Your task to perform on an android device: Open Amazon Image 0: 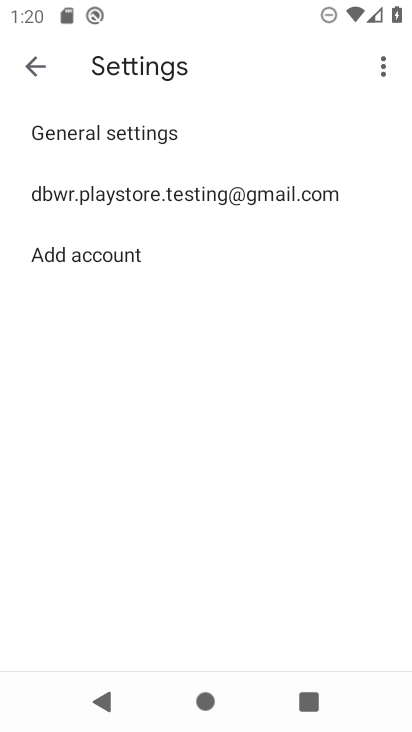
Step 0: press home button
Your task to perform on an android device: Open Amazon Image 1: 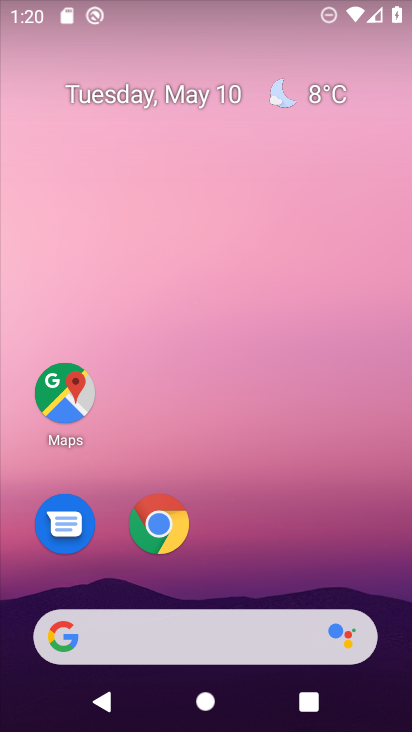
Step 1: click (222, 639)
Your task to perform on an android device: Open Amazon Image 2: 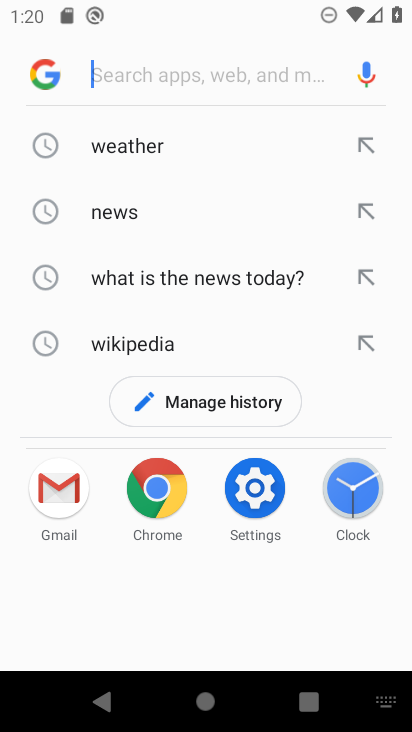
Step 2: type "amazon"
Your task to perform on an android device: Open Amazon Image 3: 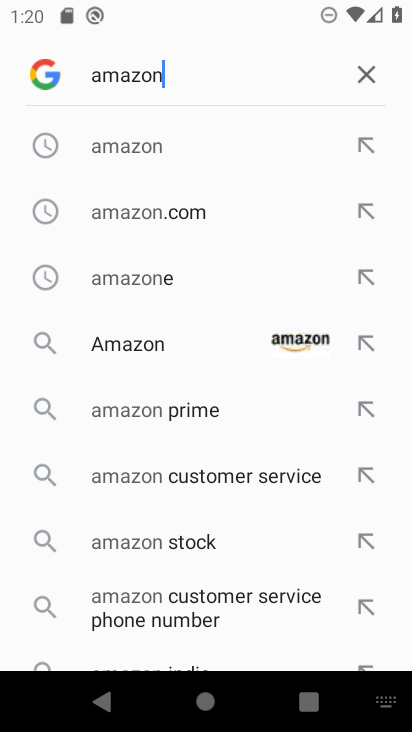
Step 3: click (155, 344)
Your task to perform on an android device: Open Amazon Image 4: 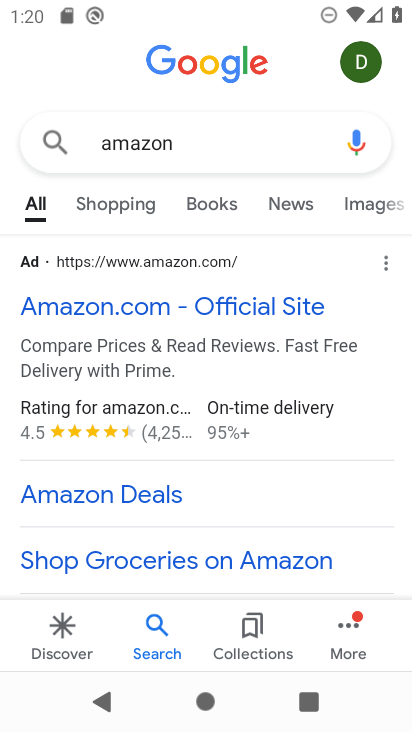
Step 4: task complete